Your task to perform on an android device: turn on the 12-hour format for clock Image 0: 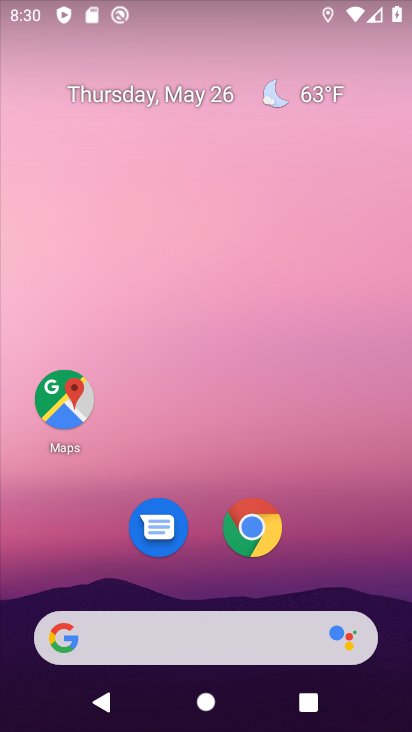
Step 0: drag from (356, 564) to (403, 85)
Your task to perform on an android device: turn on the 12-hour format for clock Image 1: 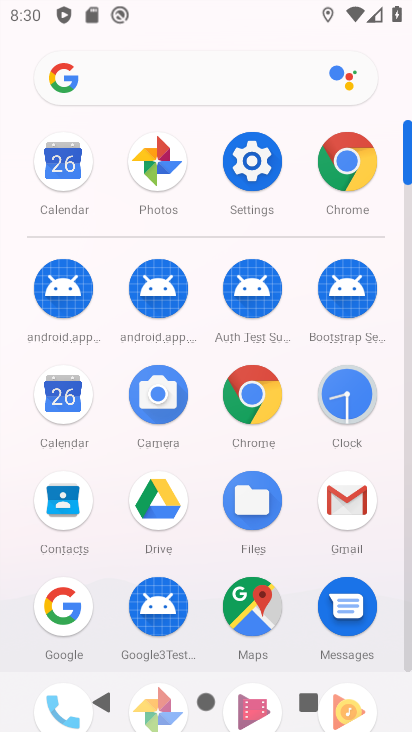
Step 1: click (368, 401)
Your task to perform on an android device: turn on the 12-hour format for clock Image 2: 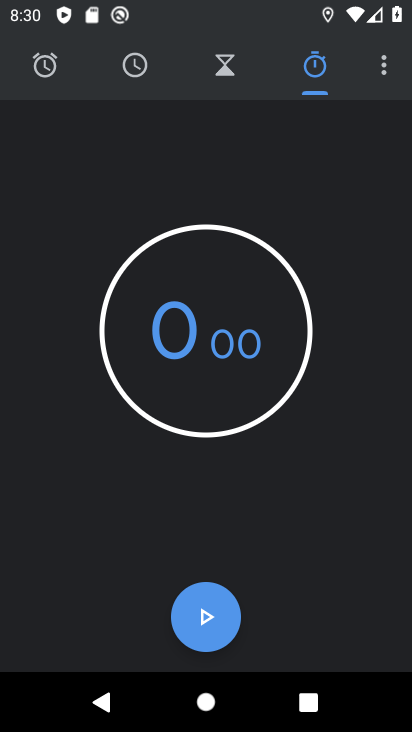
Step 2: click (382, 71)
Your task to perform on an android device: turn on the 12-hour format for clock Image 3: 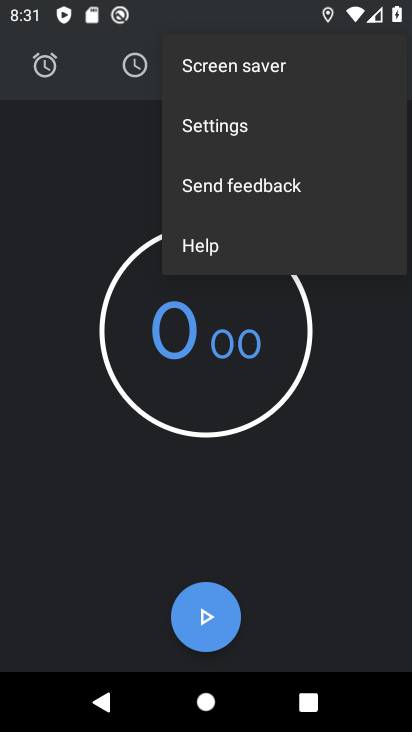
Step 3: click (246, 139)
Your task to perform on an android device: turn on the 12-hour format for clock Image 4: 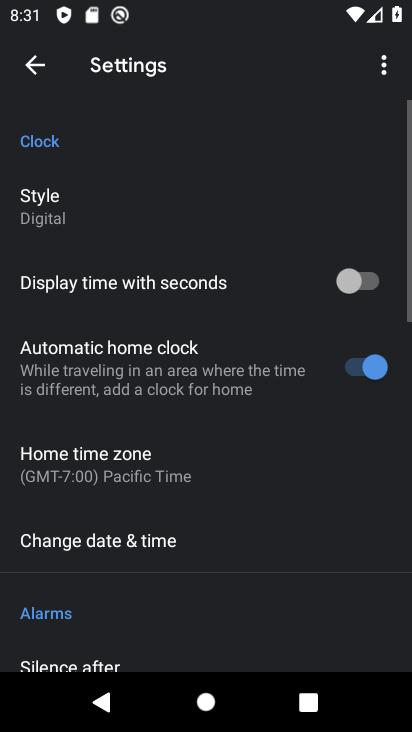
Step 4: drag from (93, 644) to (159, 302)
Your task to perform on an android device: turn on the 12-hour format for clock Image 5: 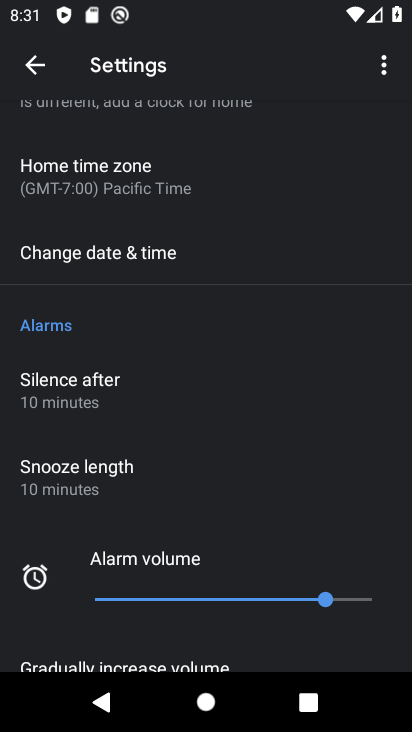
Step 5: click (63, 254)
Your task to perform on an android device: turn on the 12-hour format for clock Image 6: 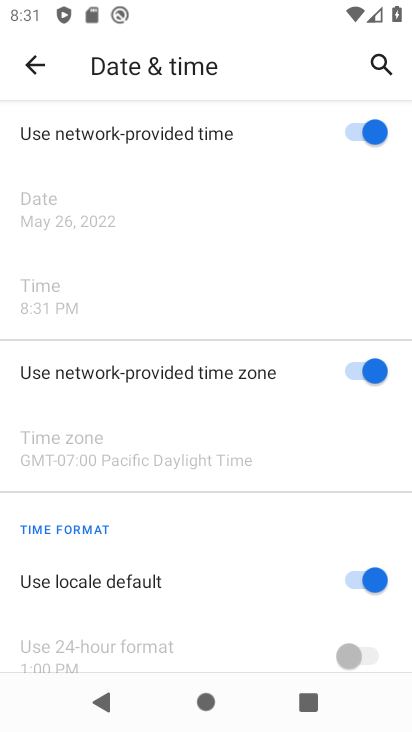
Step 6: task complete